Your task to perform on an android device: Open Youtube and go to "Your channel" Image 0: 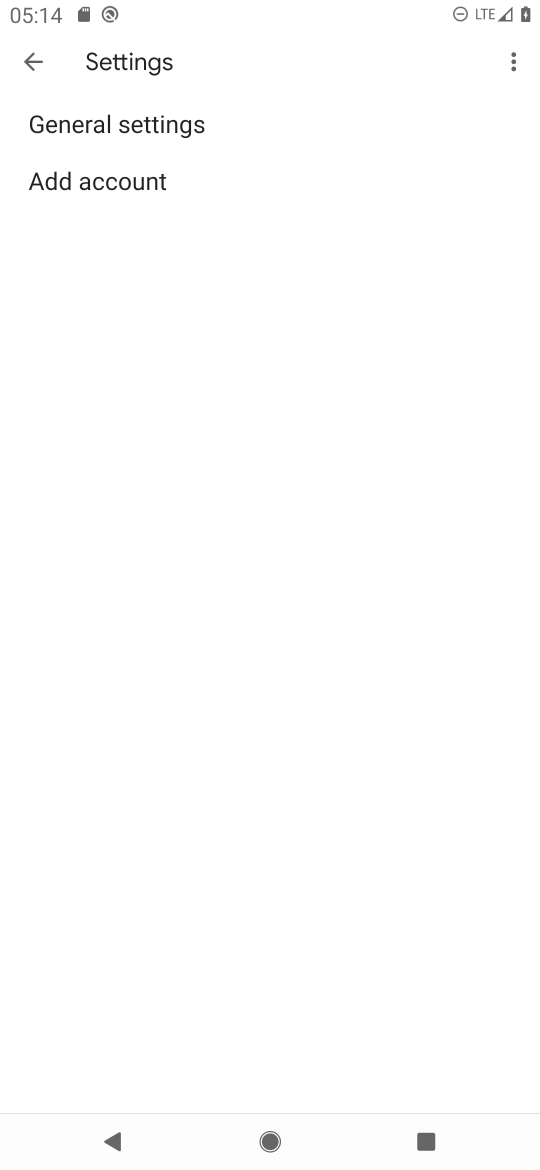
Step 0: press home button
Your task to perform on an android device: Open Youtube and go to "Your channel" Image 1: 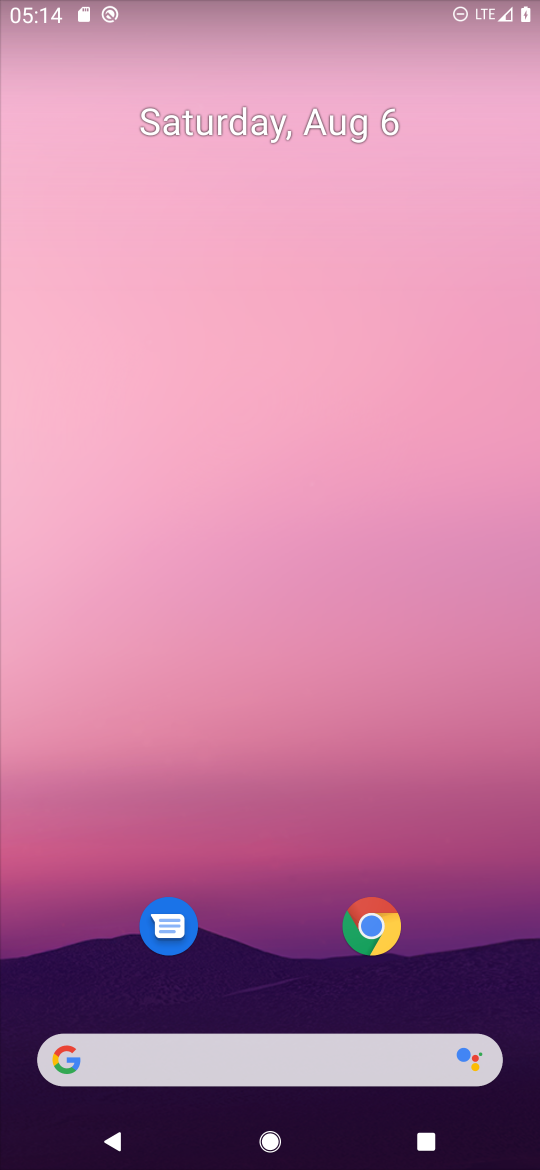
Step 1: drag from (235, 955) to (260, 254)
Your task to perform on an android device: Open Youtube and go to "Your channel" Image 2: 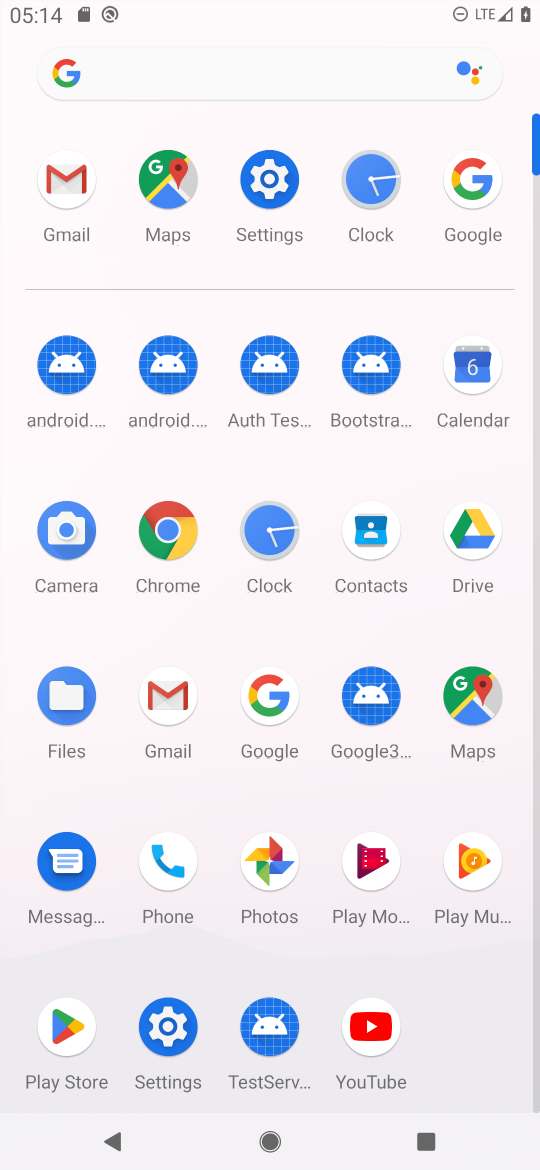
Step 2: click (383, 1033)
Your task to perform on an android device: Open Youtube and go to "Your channel" Image 3: 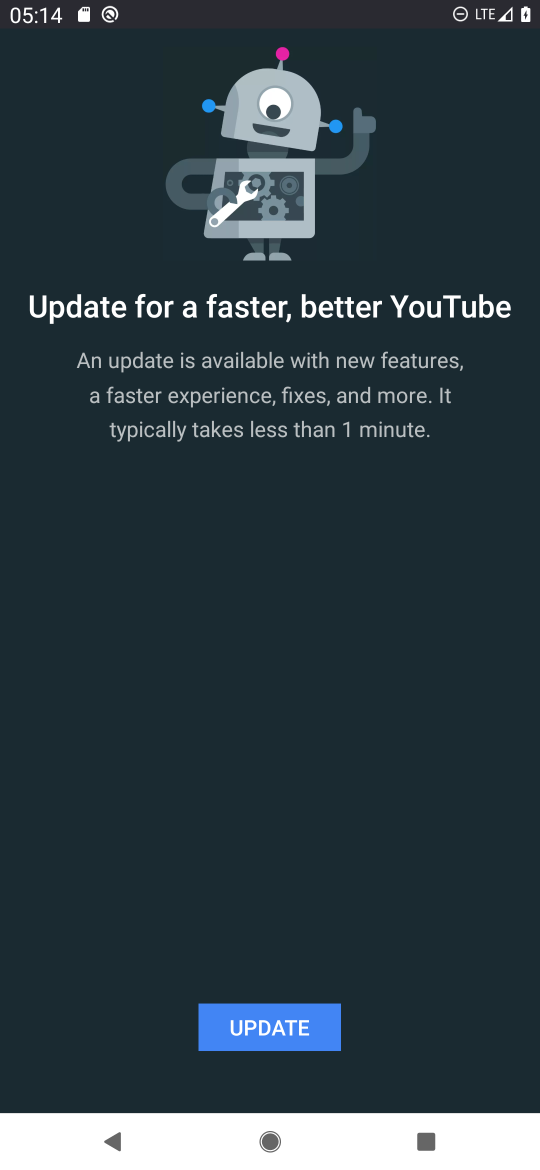
Step 3: click (245, 1032)
Your task to perform on an android device: Open Youtube and go to "Your channel" Image 4: 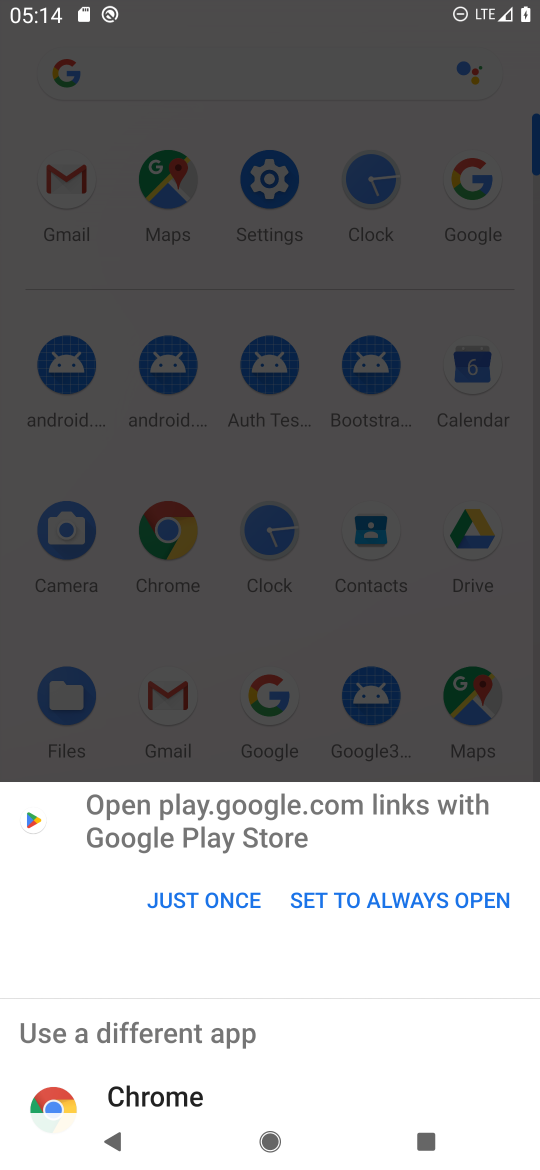
Step 4: click (177, 889)
Your task to perform on an android device: Open Youtube and go to "Your channel" Image 5: 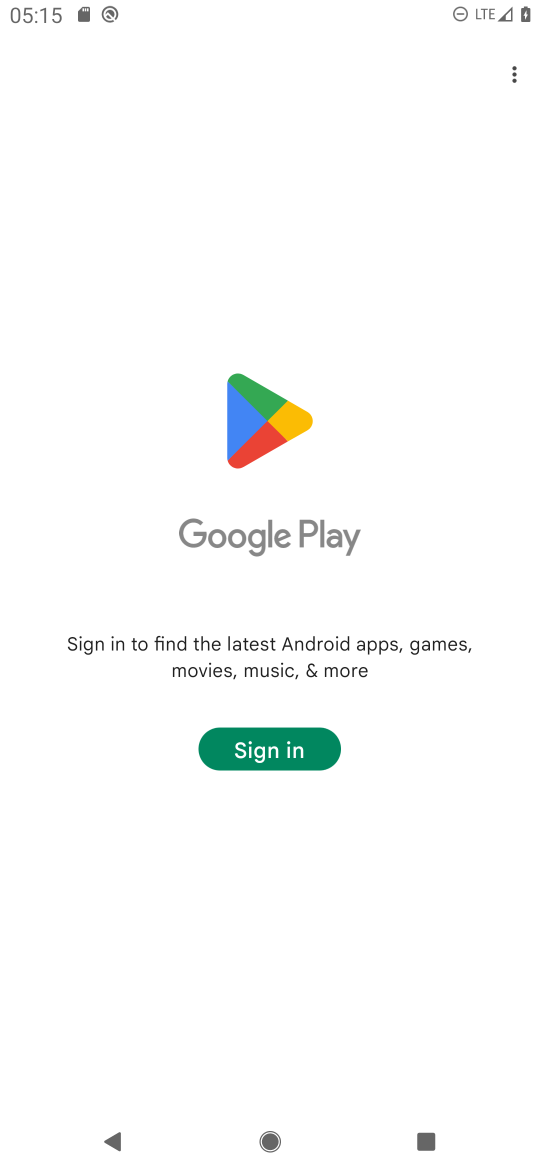
Step 5: task complete